Your task to perform on an android device: Open Google Chrome Image 0: 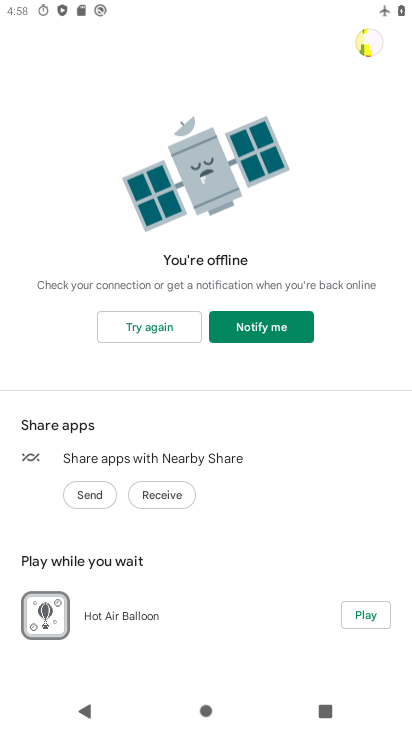
Step 0: press home button
Your task to perform on an android device: Open Google Chrome Image 1: 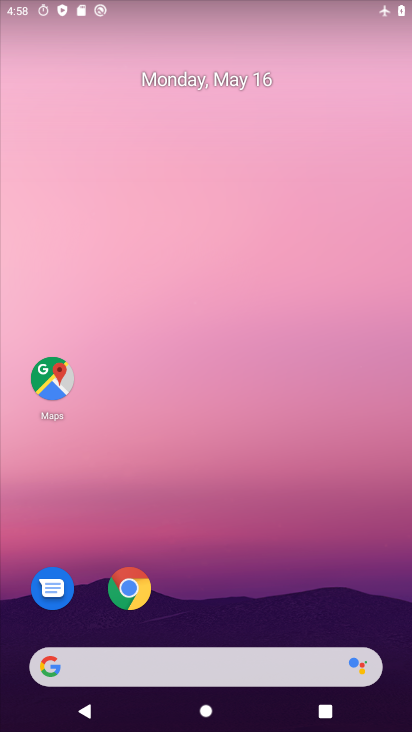
Step 1: drag from (232, 622) to (170, 227)
Your task to perform on an android device: Open Google Chrome Image 2: 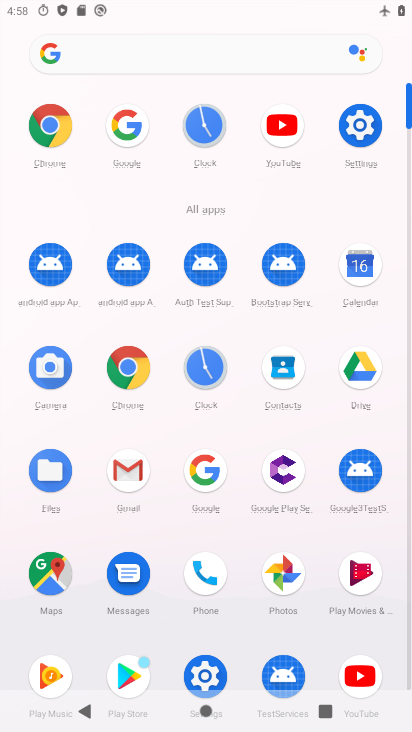
Step 2: click (129, 370)
Your task to perform on an android device: Open Google Chrome Image 3: 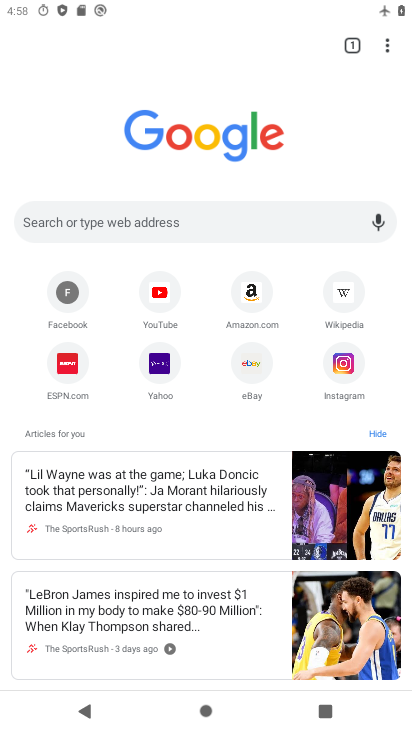
Step 3: task complete